Your task to perform on an android device: Open calendar and show me the first week of next month Image 0: 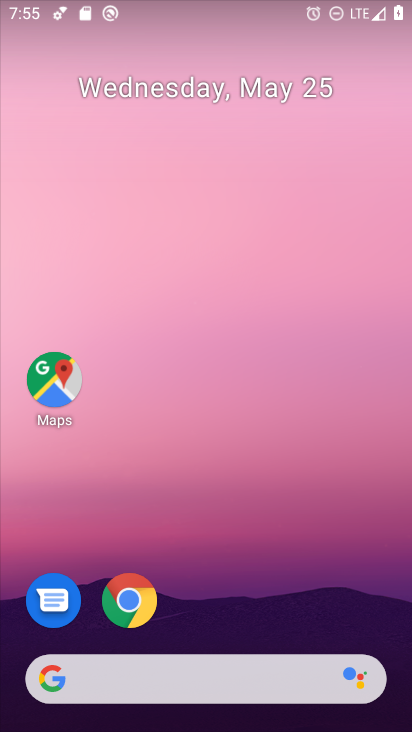
Step 0: drag from (314, 614) to (213, 215)
Your task to perform on an android device: Open calendar and show me the first week of next month Image 1: 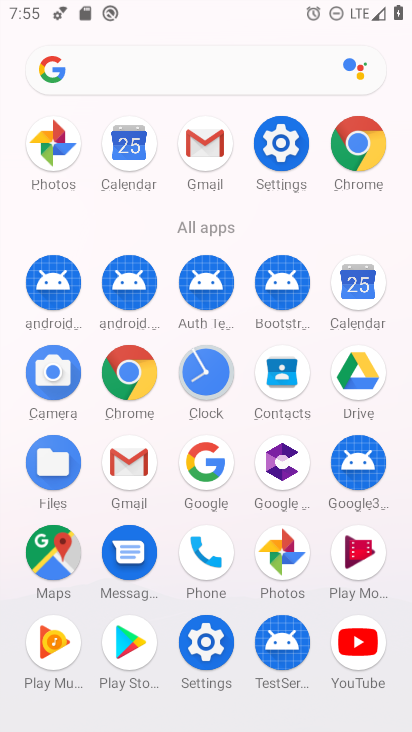
Step 1: click (132, 158)
Your task to perform on an android device: Open calendar and show me the first week of next month Image 2: 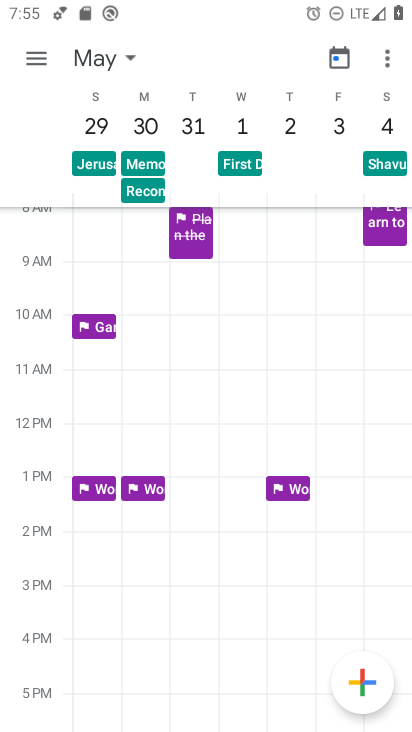
Step 2: click (98, 61)
Your task to perform on an android device: Open calendar and show me the first week of next month Image 3: 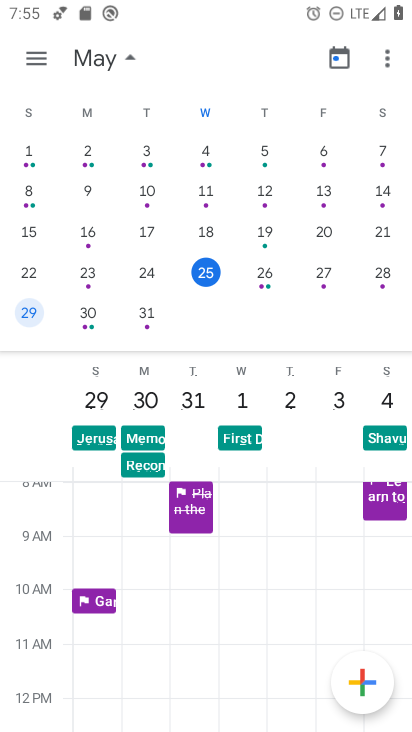
Step 3: drag from (294, 217) to (34, 180)
Your task to perform on an android device: Open calendar and show me the first week of next month Image 4: 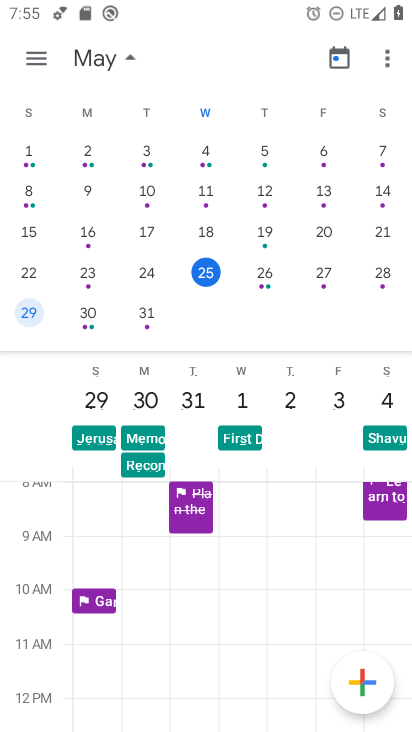
Step 4: drag from (393, 231) to (33, 217)
Your task to perform on an android device: Open calendar and show me the first week of next month Image 5: 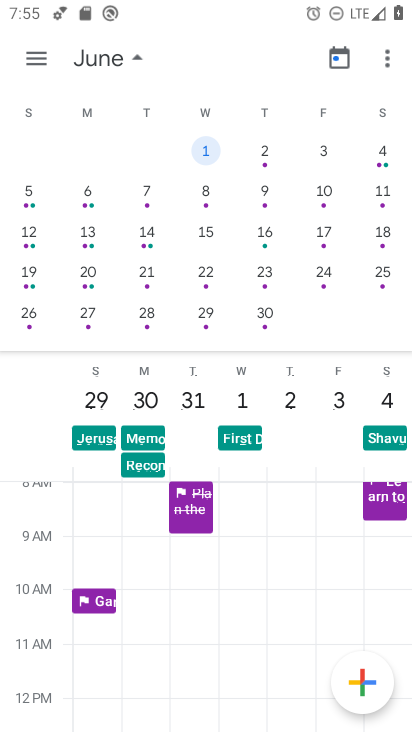
Step 5: click (33, 200)
Your task to perform on an android device: Open calendar and show me the first week of next month Image 6: 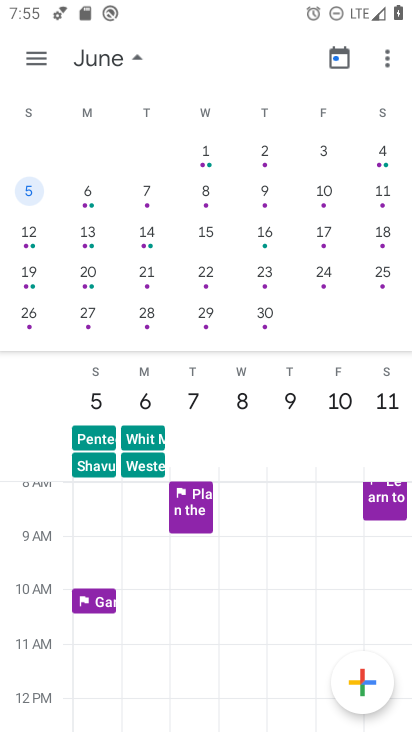
Step 6: task complete